Your task to perform on an android device: Open settings Image 0: 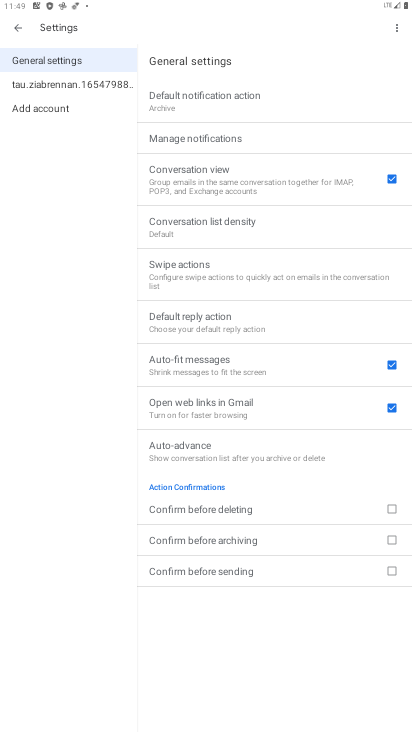
Step 0: press home button
Your task to perform on an android device: Open settings Image 1: 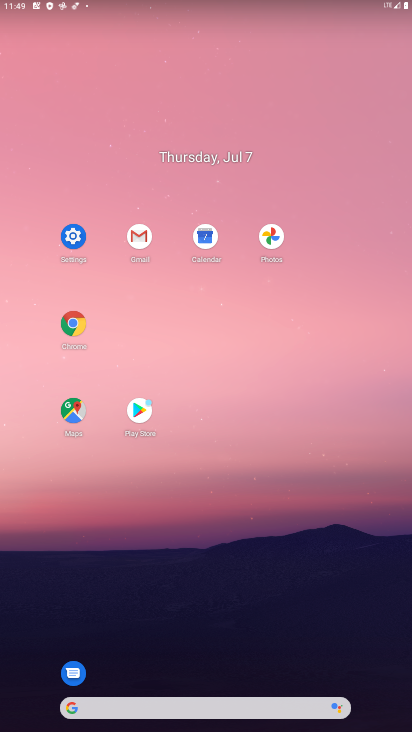
Step 1: click (79, 247)
Your task to perform on an android device: Open settings Image 2: 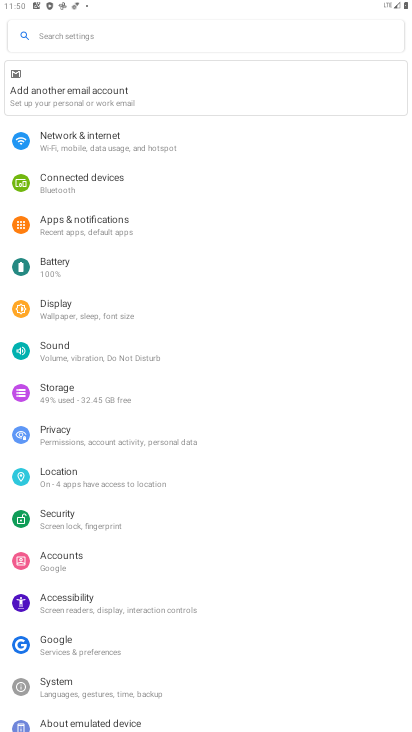
Step 2: task complete